Your task to perform on an android device: change the clock display to analog Image 0: 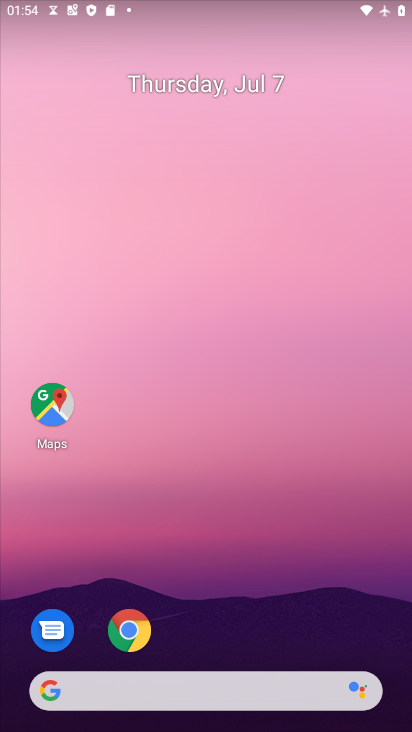
Step 0: click (398, 631)
Your task to perform on an android device: change the clock display to analog Image 1: 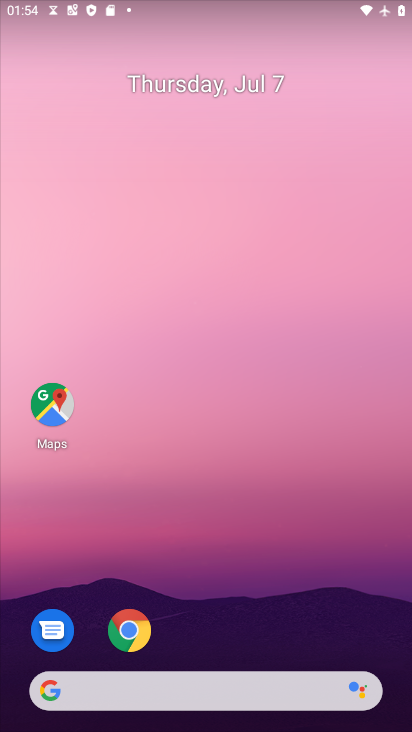
Step 1: drag from (288, 636) to (174, 103)
Your task to perform on an android device: change the clock display to analog Image 2: 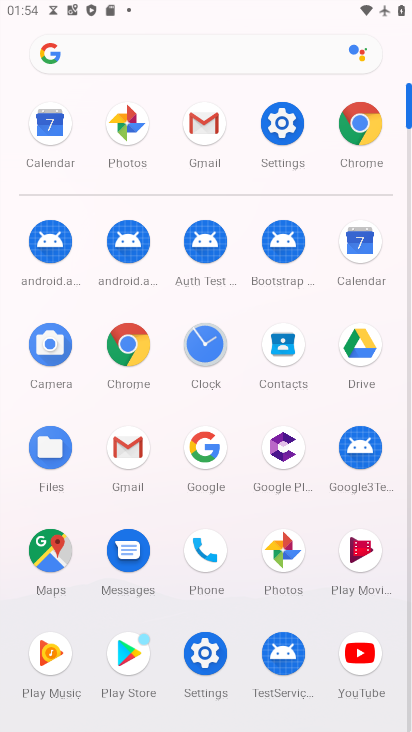
Step 2: click (205, 353)
Your task to perform on an android device: change the clock display to analog Image 3: 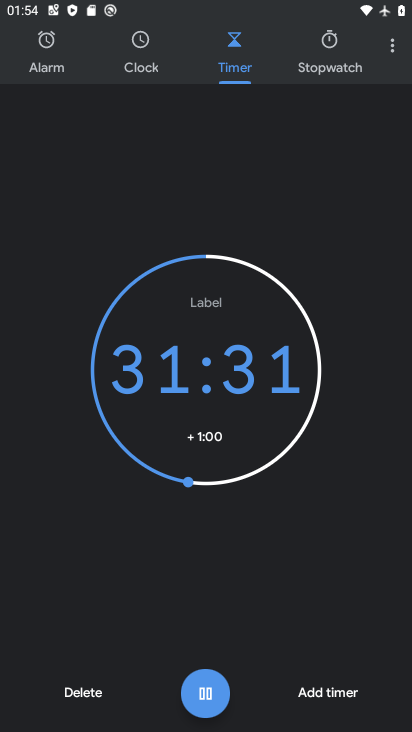
Step 3: click (391, 48)
Your task to perform on an android device: change the clock display to analog Image 4: 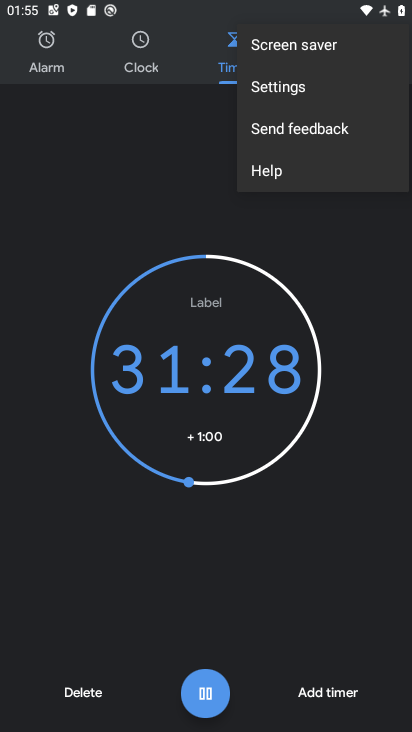
Step 4: click (334, 79)
Your task to perform on an android device: change the clock display to analog Image 5: 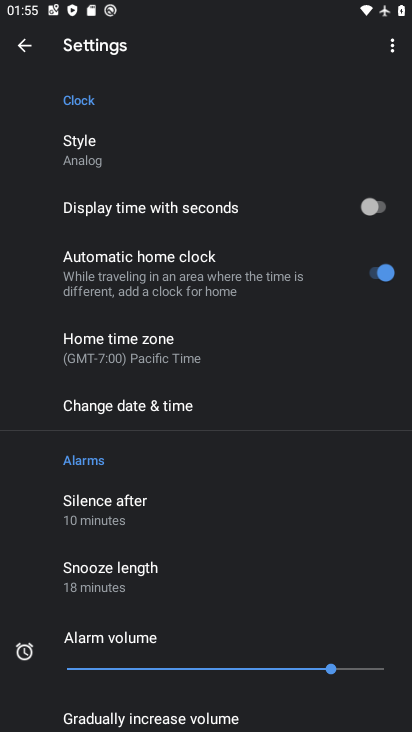
Step 5: click (266, 150)
Your task to perform on an android device: change the clock display to analog Image 6: 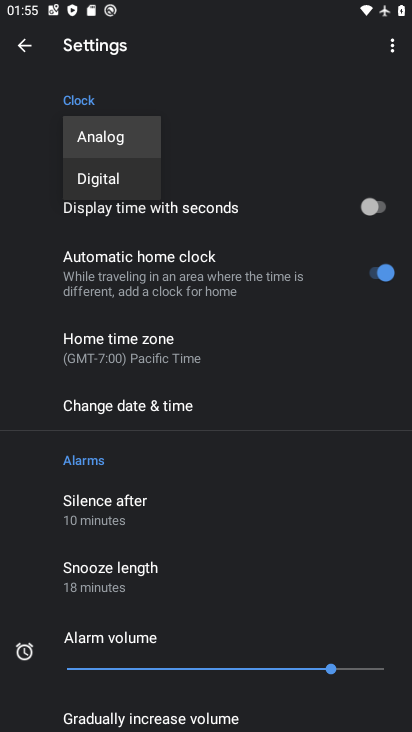
Step 6: task complete